Your task to perform on an android device: Open Wikipedia Image 0: 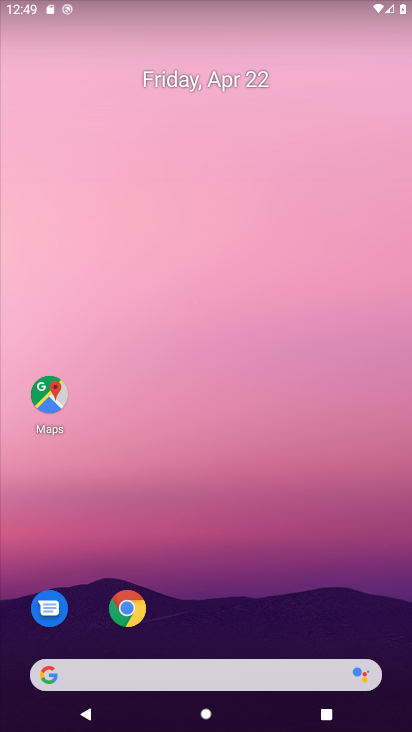
Step 0: click (131, 607)
Your task to perform on an android device: Open Wikipedia Image 1: 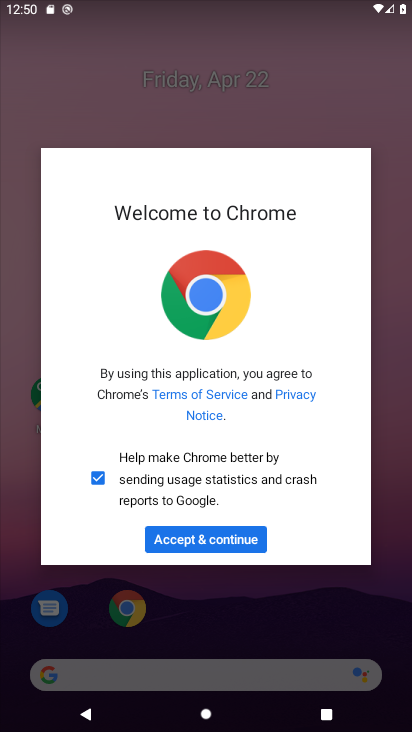
Step 1: click (158, 547)
Your task to perform on an android device: Open Wikipedia Image 2: 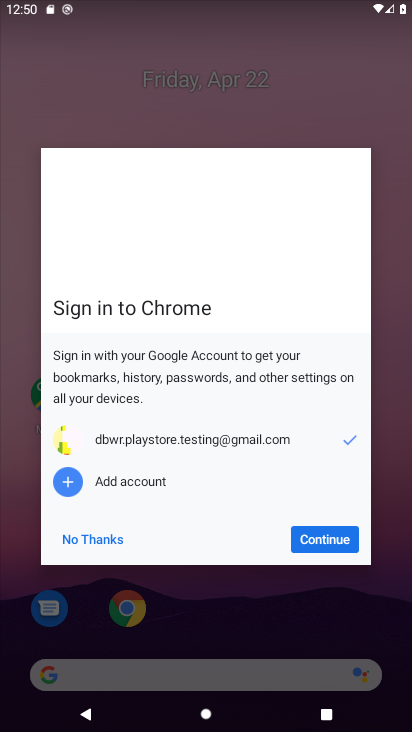
Step 2: click (309, 534)
Your task to perform on an android device: Open Wikipedia Image 3: 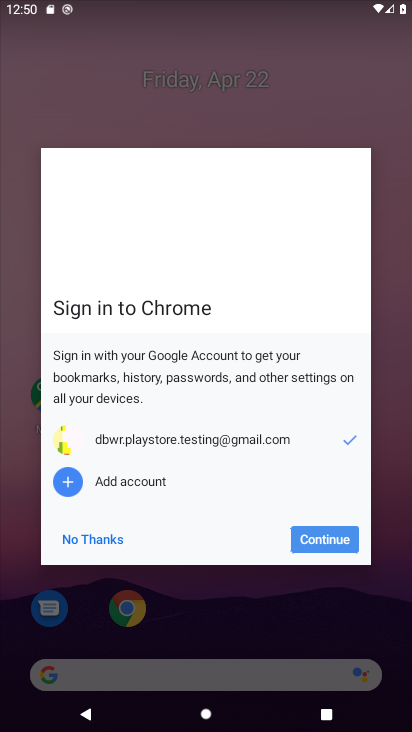
Step 3: click (309, 534)
Your task to perform on an android device: Open Wikipedia Image 4: 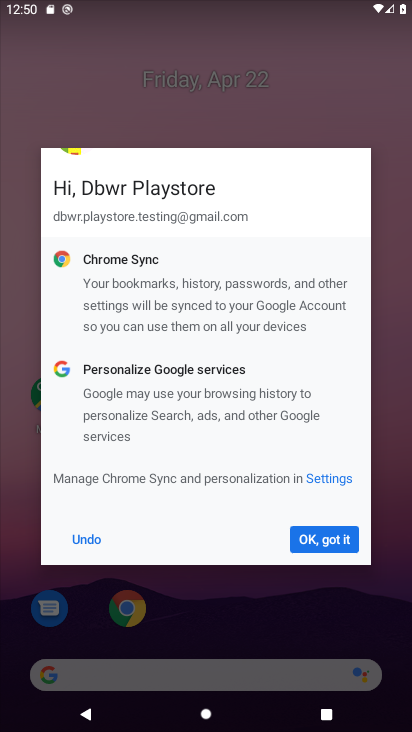
Step 4: click (321, 538)
Your task to perform on an android device: Open Wikipedia Image 5: 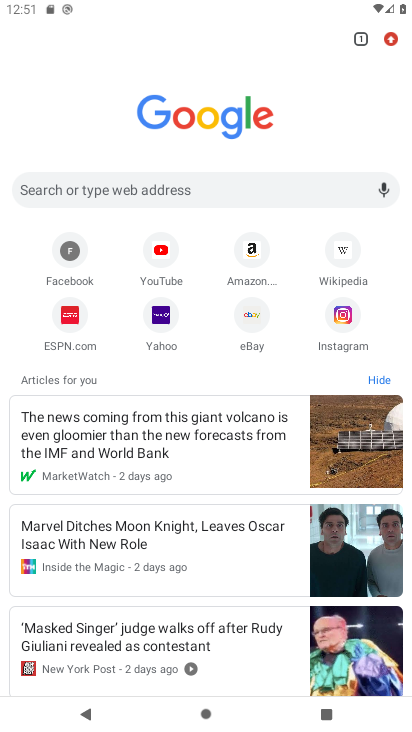
Step 5: click (331, 255)
Your task to perform on an android device: Open Wikipedia Image 6: 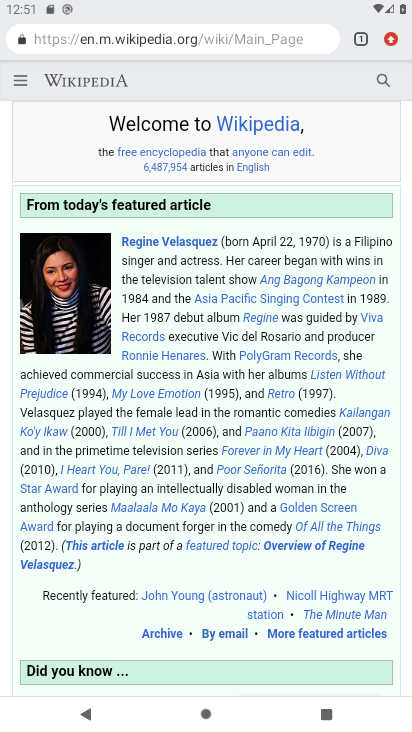
Step 6: task complete